Your task to perform on an android device: turn off location history Image 0: 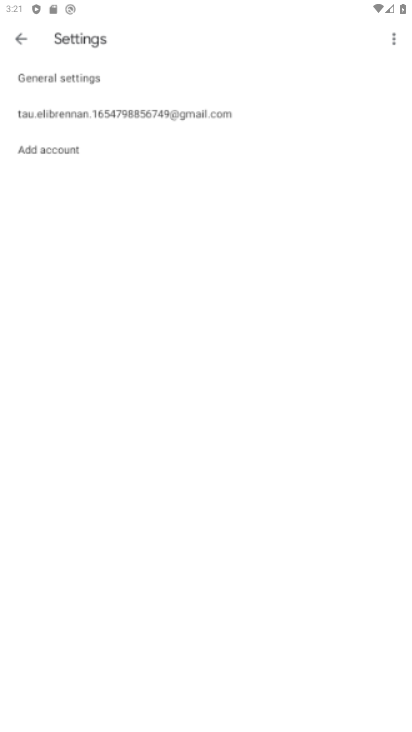
Step 0: drag from (214, 675) to (305, 174)
Your task to perform on an android device: turn off location history Image 1: 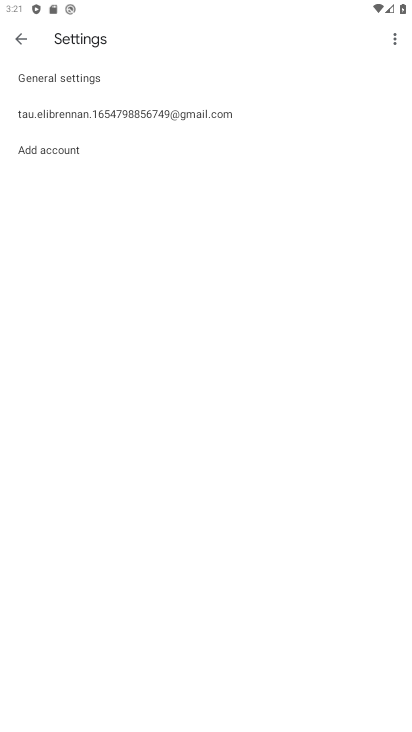
Step 1: click (319, 150)
Your task to perform on an android device: turn off location history Image 2: 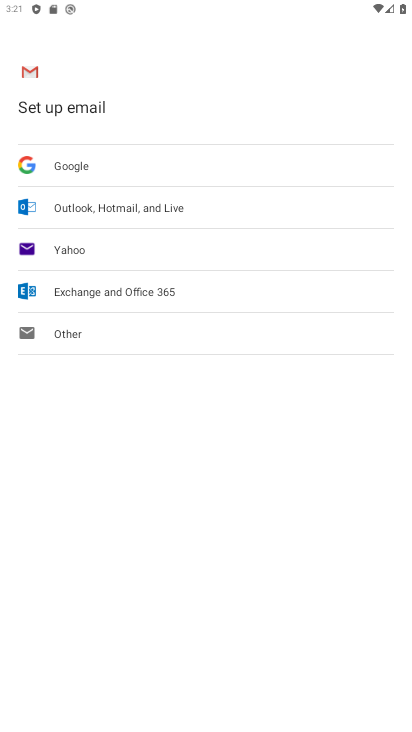
Step 2: press home button
Your task to perform on an android device: turn off location history Image 3: 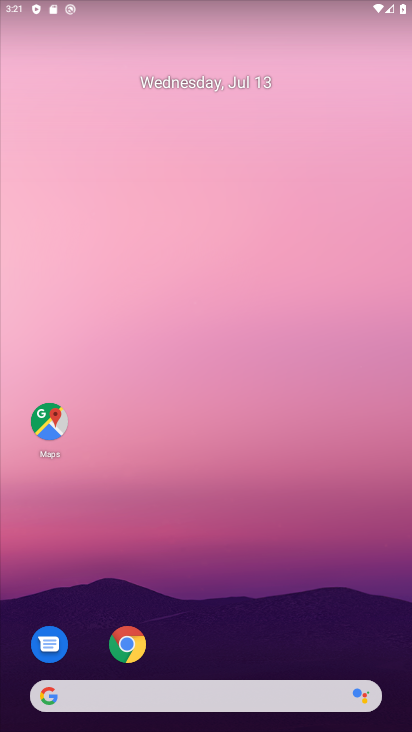
Step 3: drag from (202, 635) to (255, 130)
Your task to perform on an android device: turn off location history Image 4: 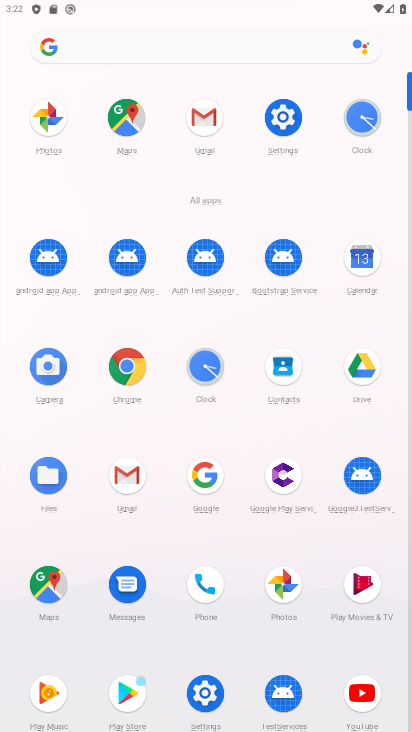
Step 4: click (200, 687)
Your task to perform on an android device: turn off location history Image 5: 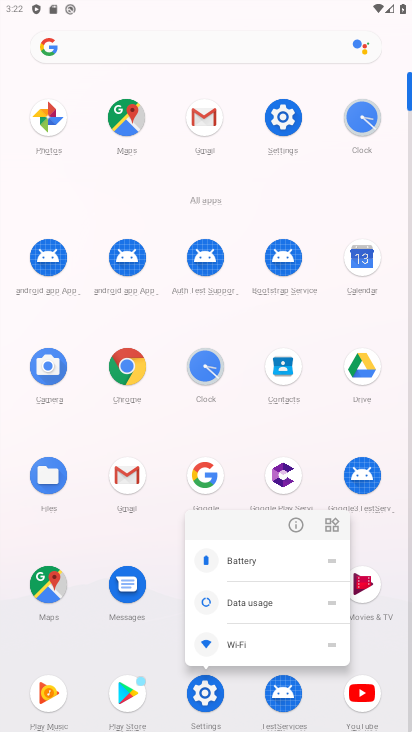
Step 5: click (286, 522)
Your task to perform on an android device: turn off location history Image 6: 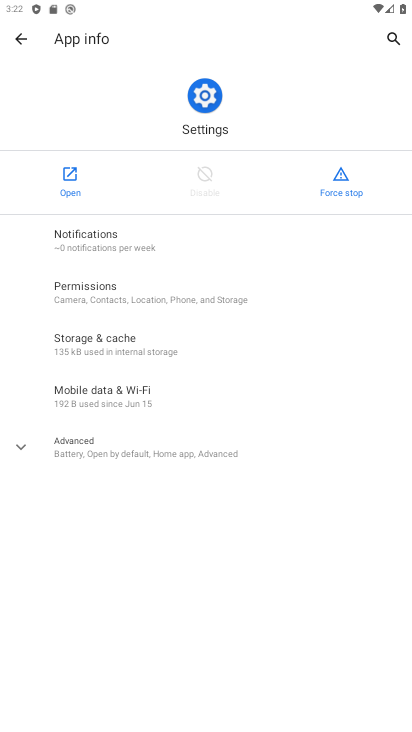
Step 6: click (79, 189)
Your task to perform on an android device: turn off location history Image 7: 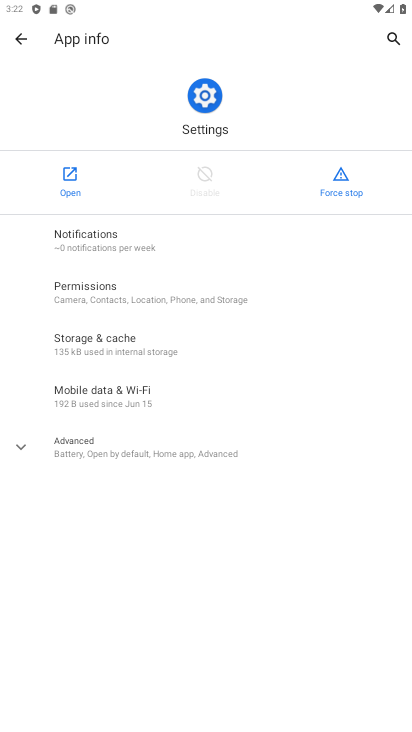
Step 7: click (71, 187)
Your task to perform on an android device: turn off location history Image 8: 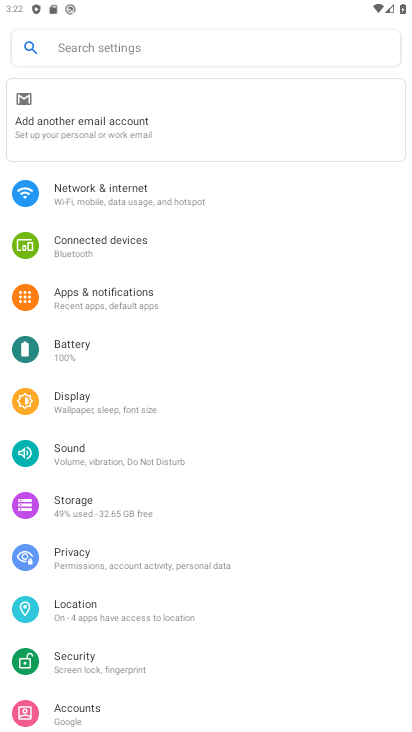
Step 8: click (67, 611)
Your task to perform on an android device: turn off location history Image 9: 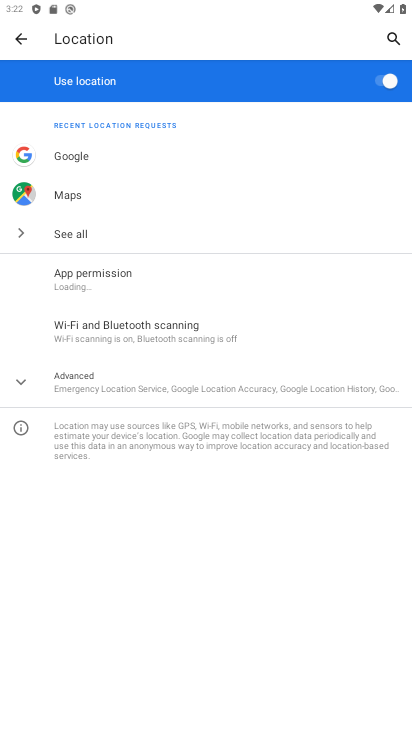
Step 9: drag from (174, 606) to (264, 230)
Your task to perform on an android device: turn off location history Image 10: 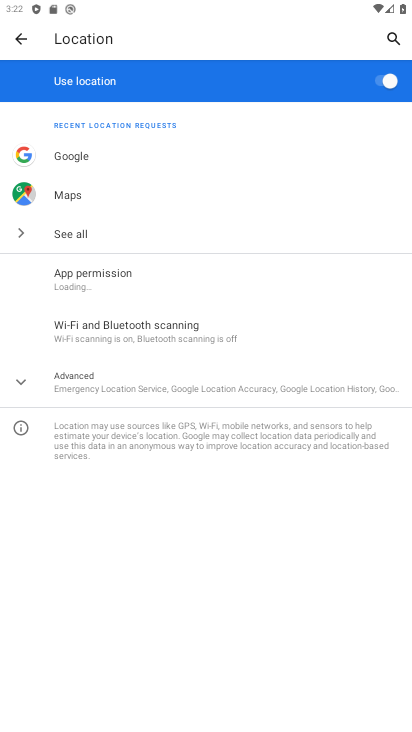
Step 10: click (88, 365)
Your task to perform on an android device: turn off location history Image 11: 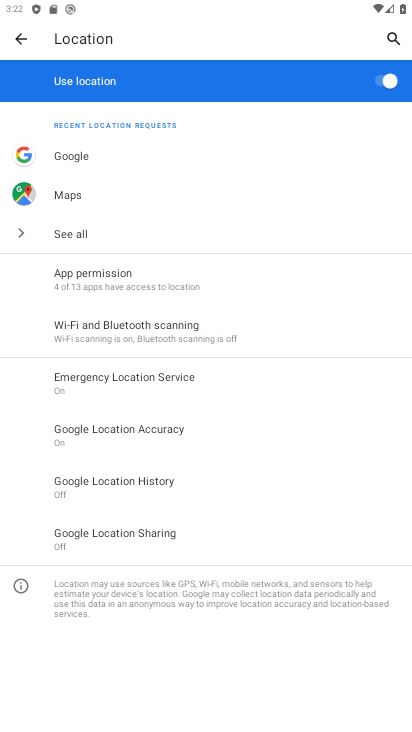
Step 11: click (164, 485)
Your task to perform on an android device: turn off location history Image 12: 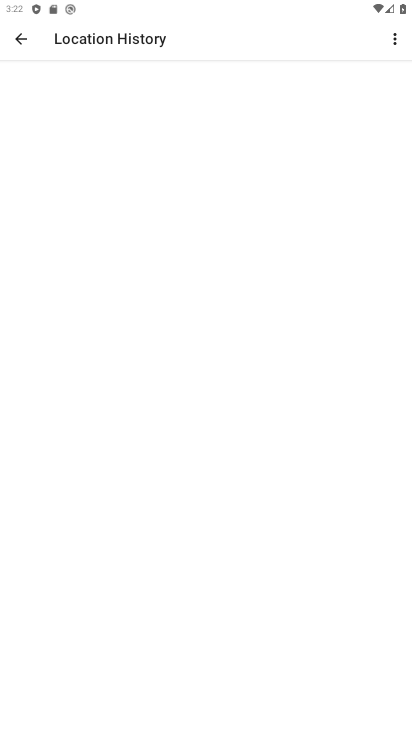
Step 12: drag from (196, 565) to (252, 153)
Your task to perform on an android device: turn off location history Image 13: 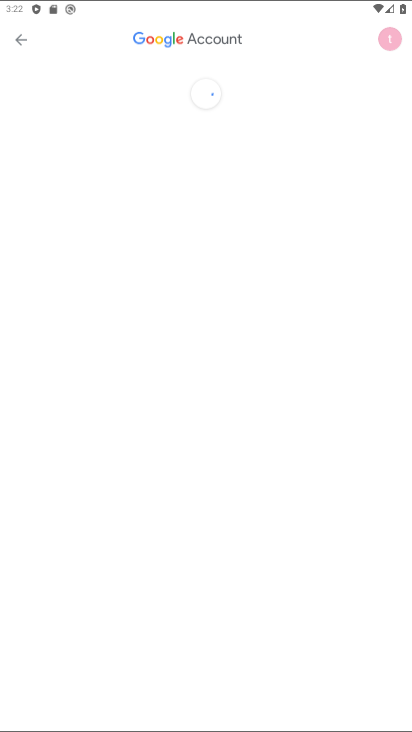
Step 13: drag from (247, 550) to (244, 307)
Your task to perform on an android device: turn off location history Image 14: 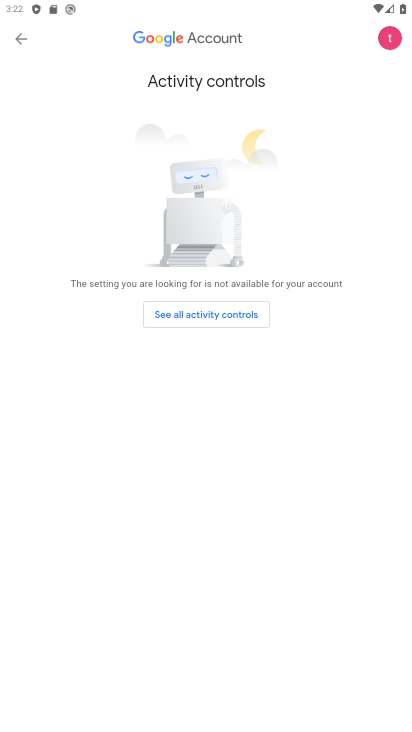
Step 14: click (205, 313)
Your task to perform on an android device: turn off location history Image 15: 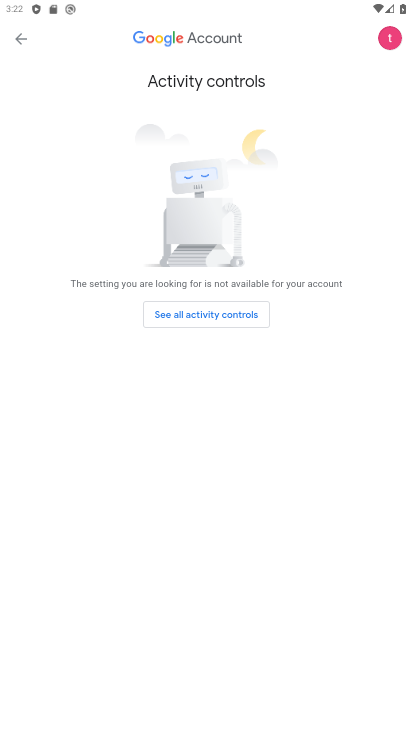
Step 15: drag from (240, 478) to (240, 346)
Your task to perform on an android device: turn off location history Image 16: 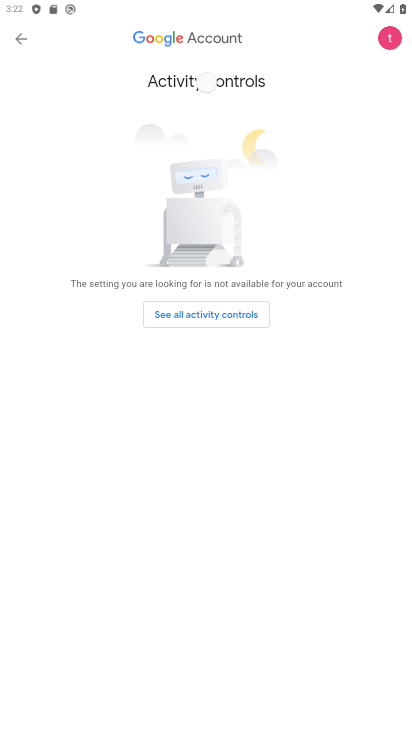
Step 16: click (198, 323)
Your task to perform on an android device: turn off location history Image 17: 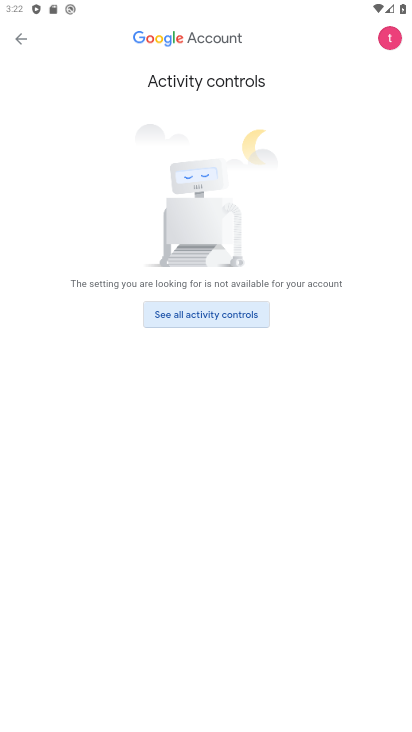
Step 17: click (191, 319)
Your task to perform on an android device: turn off location history Image 18: 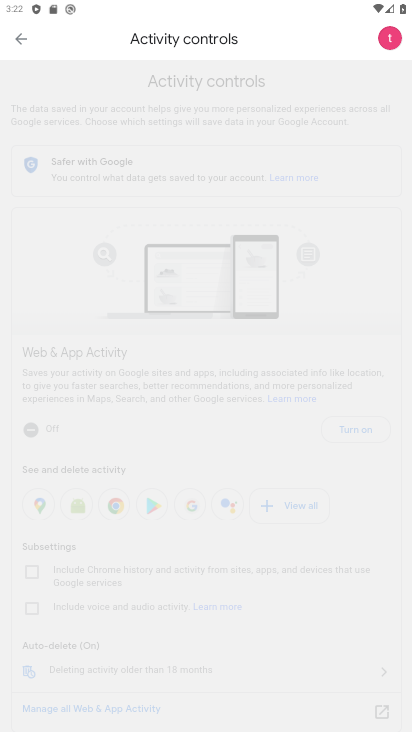
Step 18: task complete